Your task to perform on an android device: Open settings on Google Maps Image 0: 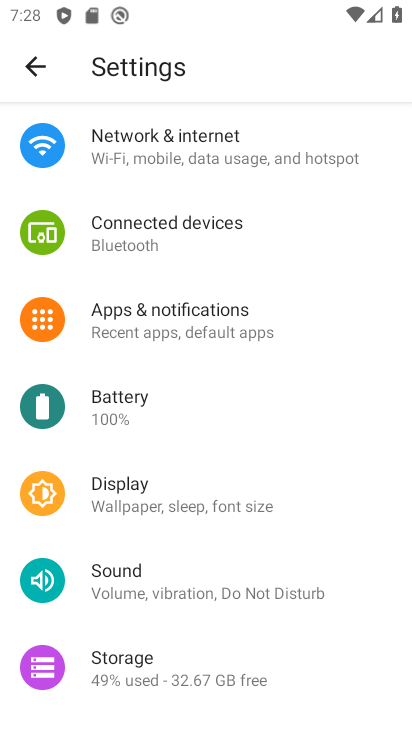
Step 0: press home button
Your task to perform on an android device: Open settings on Google Maps Image 1: 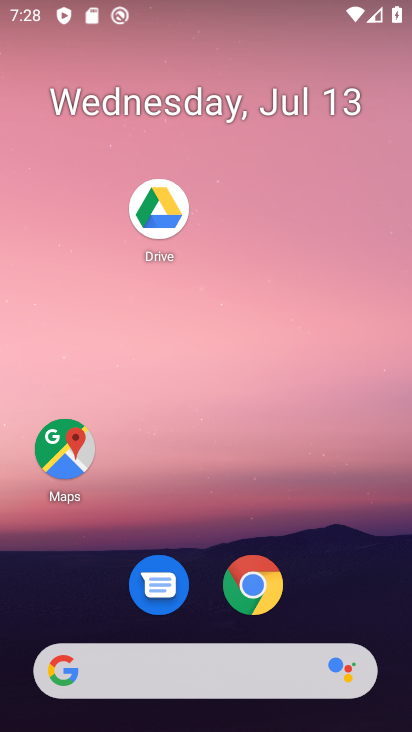
Step 1: click (65, 456)
Your task to perform on an android device: Open settings on Google Maps Image 2: 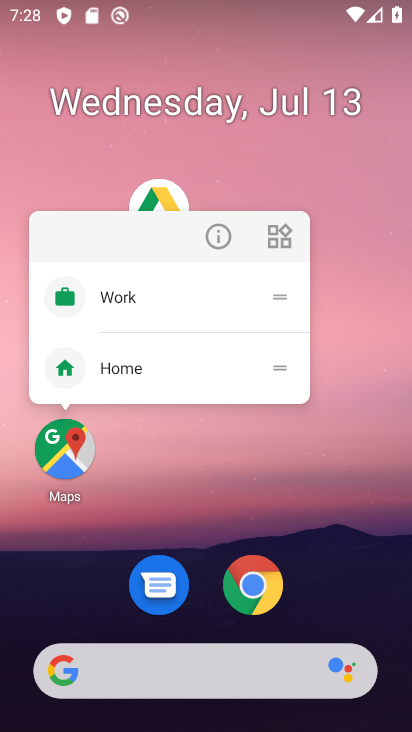
Step 2: click (65, 448)
Your task to perform on an android device: Open settings on Google Maps Image 3: 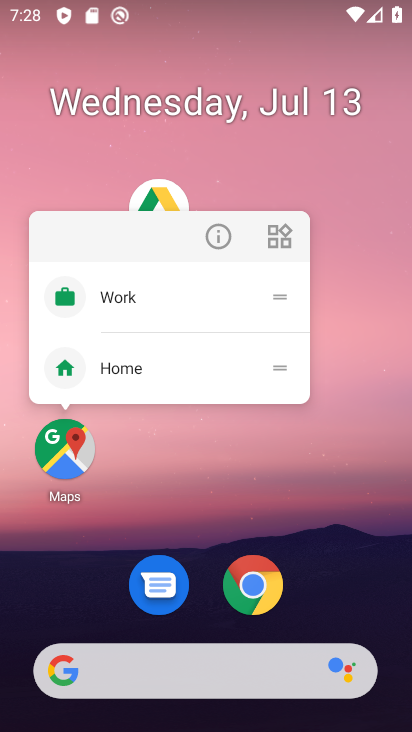
Step 3: click (65, 456)
Your task to perform on an android device: Open settings on Google Maps Image 4: 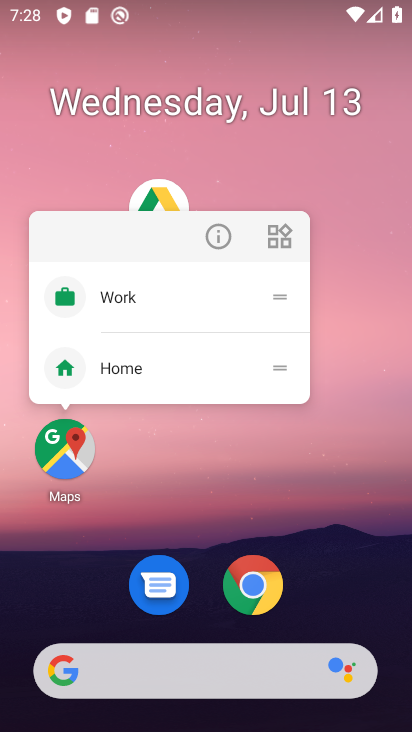
Step 4: click (65, 456)
Your task to perform on an android device: Open settings on Google Maps Image 5: 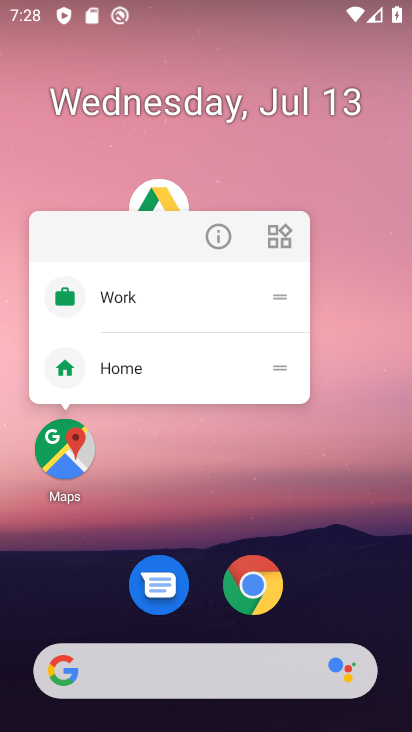
Step 5: click (65, 456)
Your task to perform on an android device: Open settings on Google Maps Image 6: 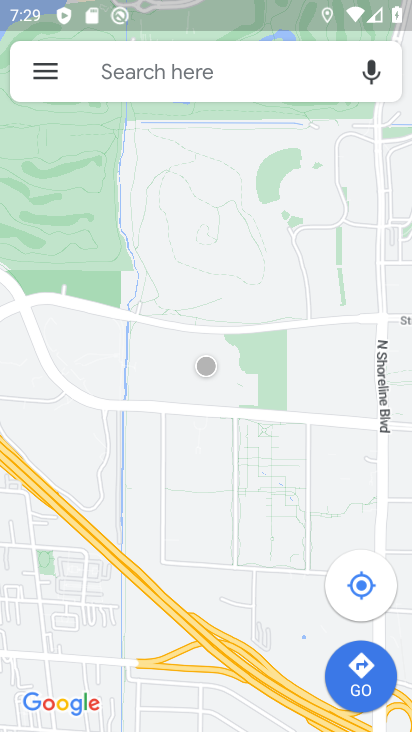
Step 6: click (47, 68)
Your task to perform on an android device: Open settings on Google Maps Image 7: 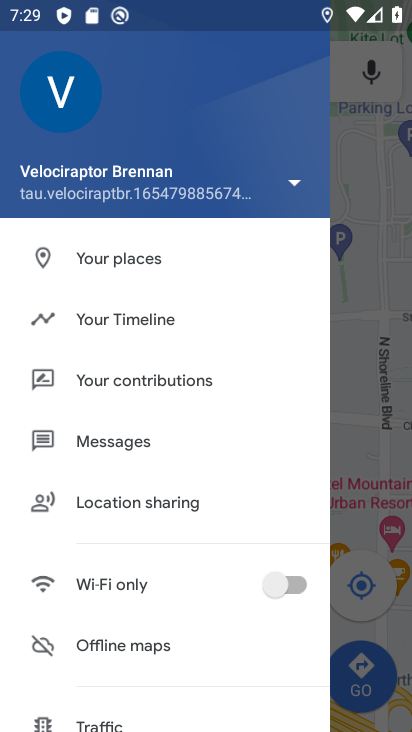
Step 7: drag from (164, 640) to (199, 262)
Your task to perform on an android device: Open settings on Google Maps Image 8: 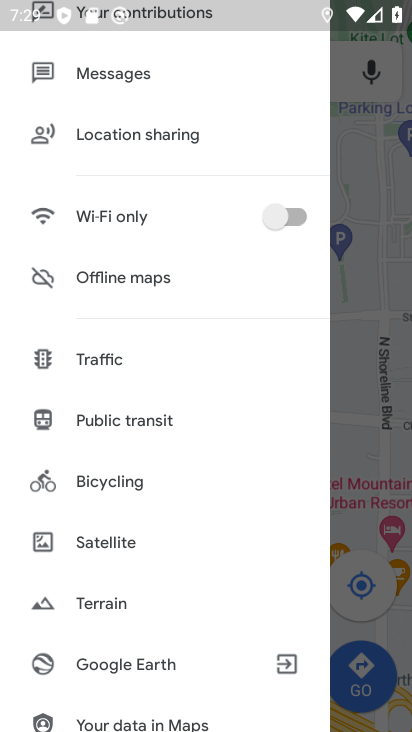
Step 8: drag from (177, 547) to (175, 172)
Your task to perform on an android device: Open settings on Google Maps Image 9: 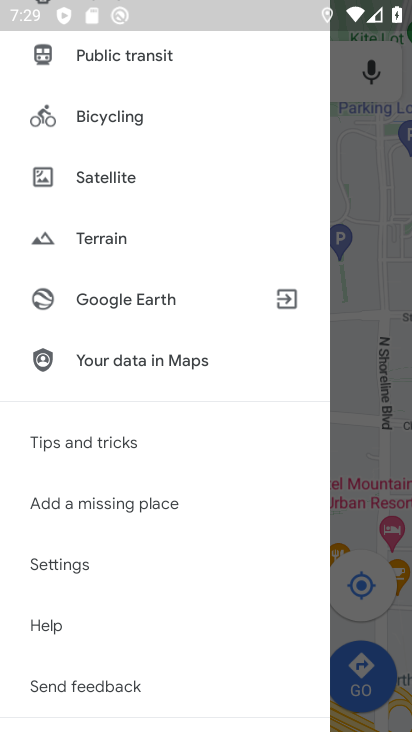
Step 9: click (82, 565)
Your task to perform on an android device: Open settings on Google Maps Image 10: 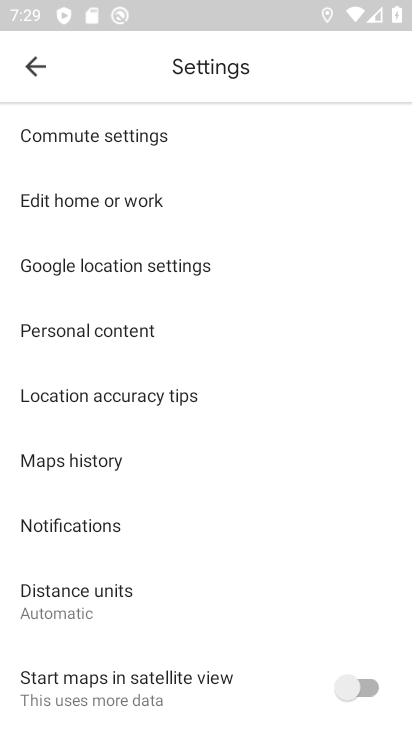
Step 10: task complete